Your task to perform on an android device: turn on the 24-hour format for clock Image 0: 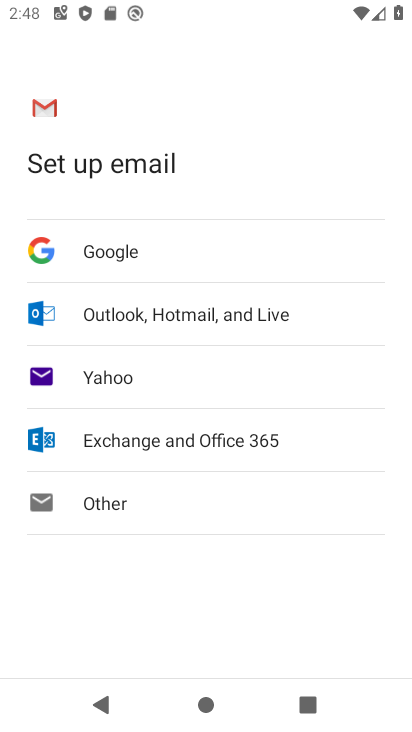
Step 0: press home button
Your task to perform on an android device: turn on the 24-hour format for clock Image 1: 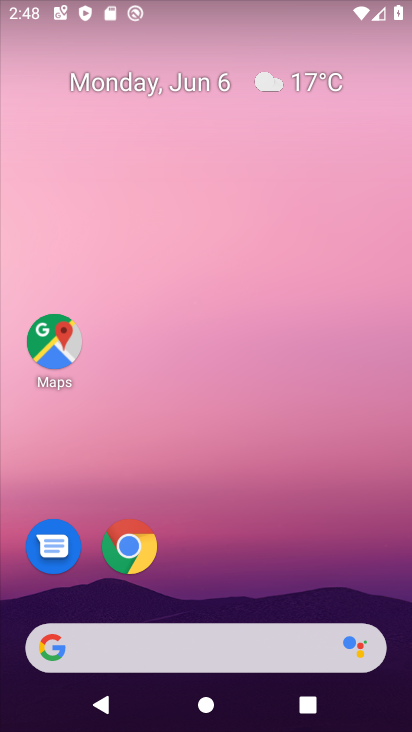
Step 1: drag from (320, 578) to (251, 5)
Your task to perform on an android device: turn on the 24-hour format for clock Image 2: 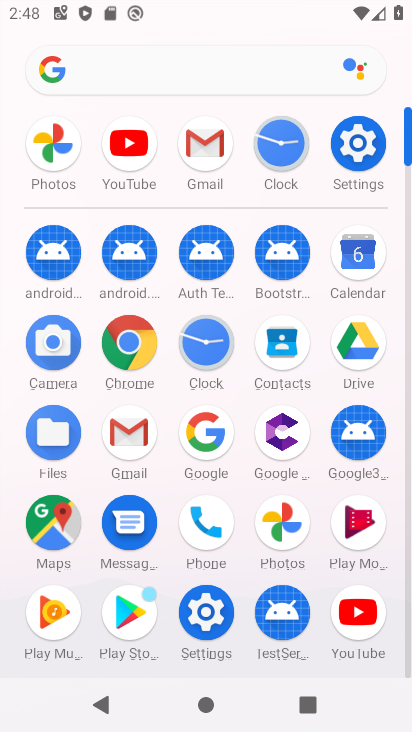
Step 2: click (355, 155)
Your task to perform on an android device: turn on the 24-hour format for clock Image 3: 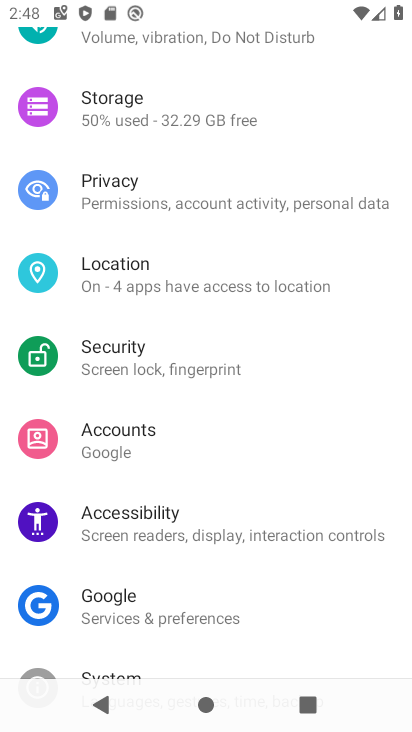
Step 3: drag from (171, 607) to (188, 573)
Your task to perform on an android device: turn on the 24-hour format for clock Image 4: 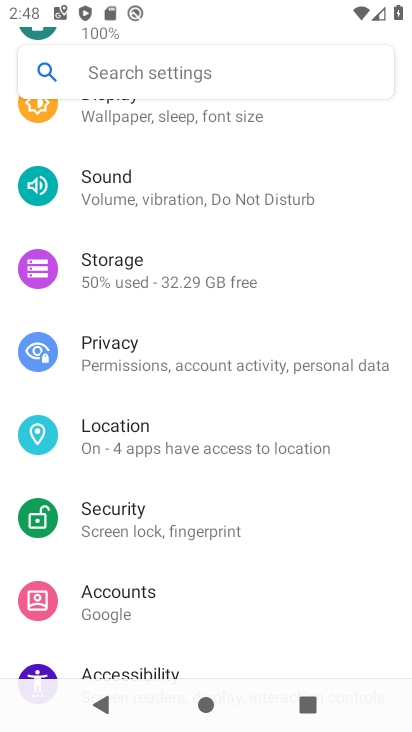
Step 4: drag from (176, 134) to (195, 488)
Your task to perform on an android device: turn on the 24-hour format for clock Image 5: 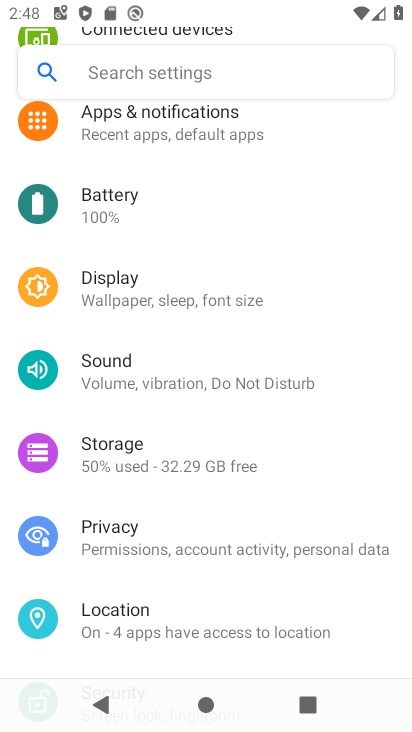
Step 5: press home button
Your task to perform on an android device: turn on the 24-hour format for clock Image 6: 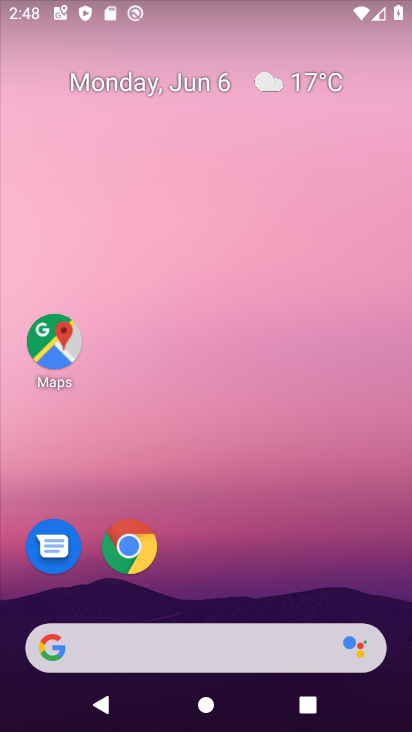
Step 6: drag from (280, 572) to (229, 10)
Your task to perform on an android device: turn on the 24-hour format for clock Image 7: 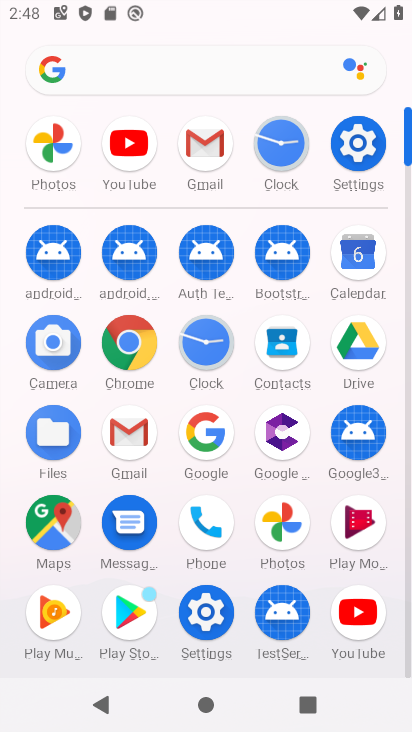
Step 7: click (295, 148)
Your task to perform on an android device: turn on the 24-hour format for clock Image 8: 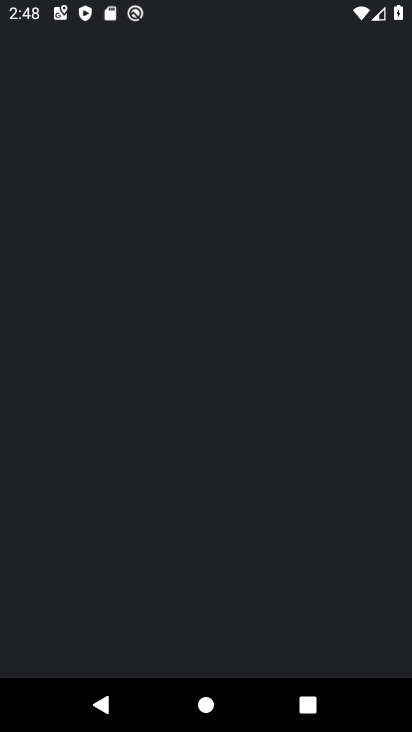
Step 8: task complete